Your task to perform on an android device: find which apps use the phone's location Image 0: 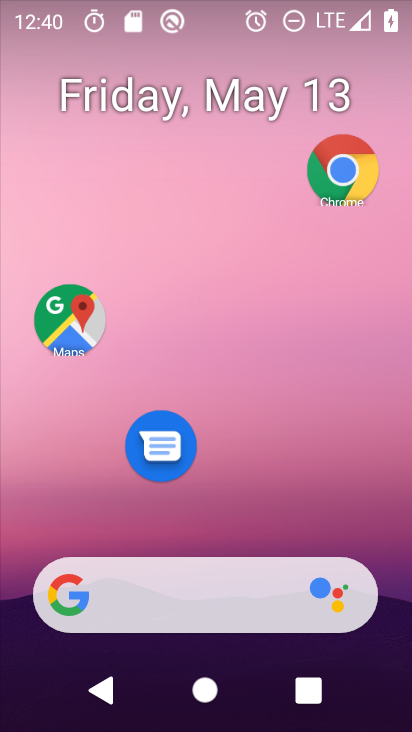
Step 0: drag from (294, 544) to (324, 35)
Your task to perform on an android device: find which apps use the phone's location Image 1: 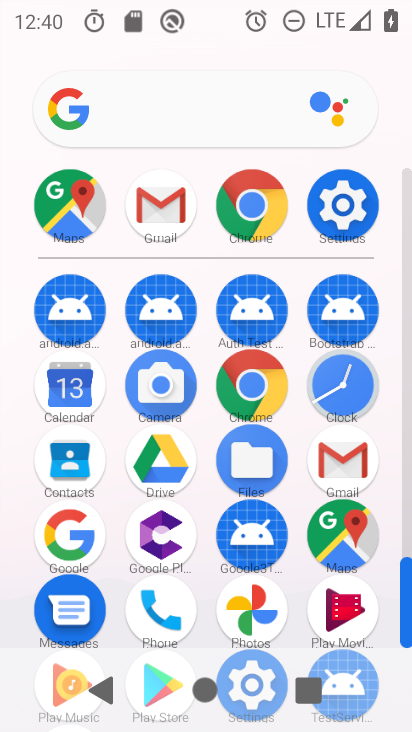
Step 1: click (340, 212)
Your task to perform on an android device: find which apps use the phone's location Image 2: 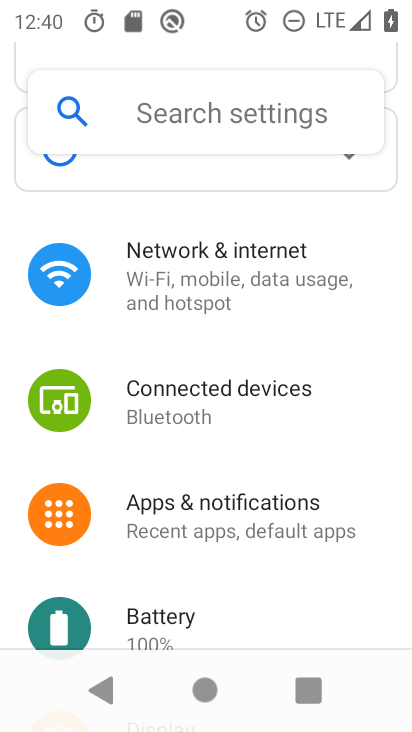
Step 2: drag from (239, 620) to (315, 133)
Your task to perform on an android device: find which apps use the phone's location Image 3: 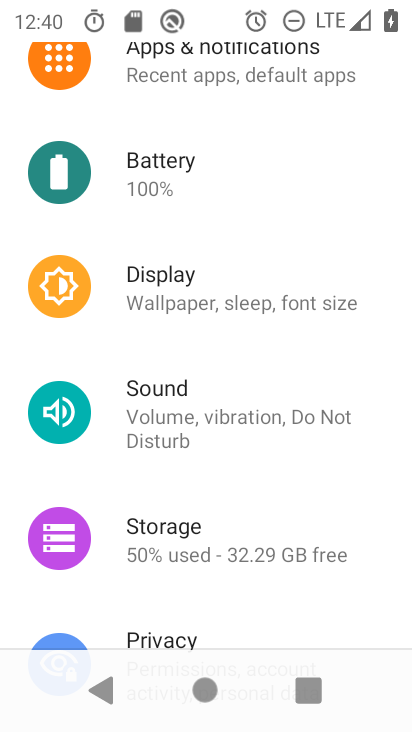
Step 3: drag from (203, 603) to (243, 310)
Your task to perform on an android device: find which apps use the phone's location Image 4: 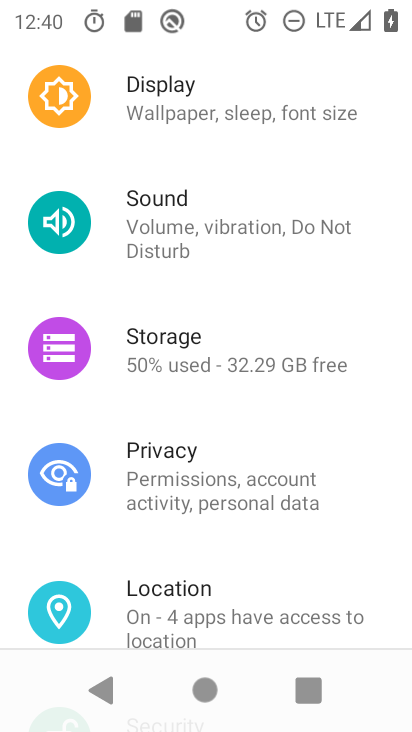
Step 4: click (223, 611)
Your task to perform on an android device: find which apps use the phone's location Image 5: 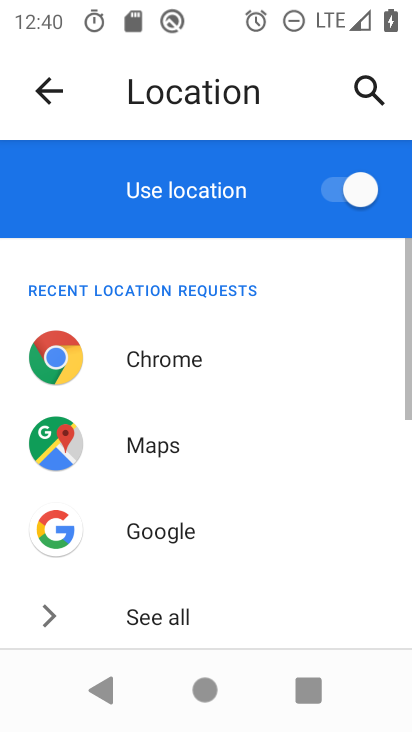
Step 5: drag from (223, 611) to (307, 244)
Your task to perform on an android device: find which apps use the phone's location Image 6: 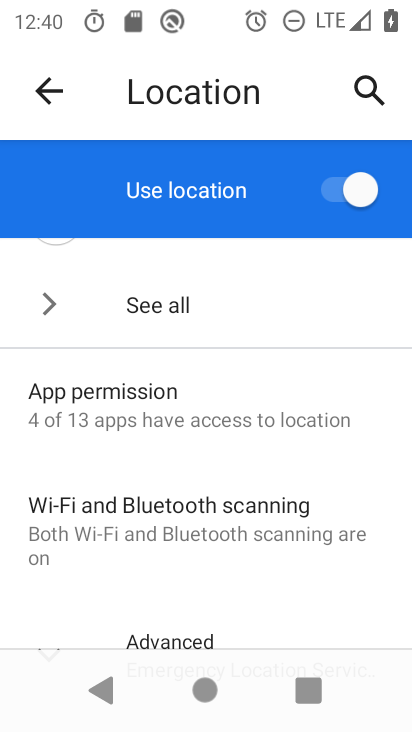
Step 6: click (173, 415)
Your task to perform on an android device: find which apps use the phone's location Image 7: 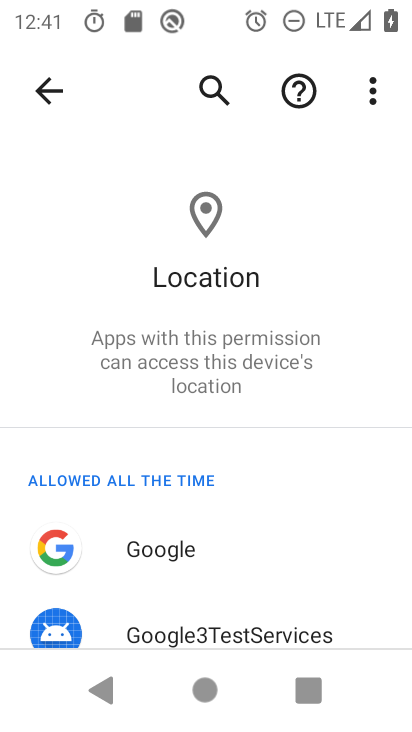
Step 7: task complete